Your task to perform on an android device: Open Chrome and go to the settings page Image 0: 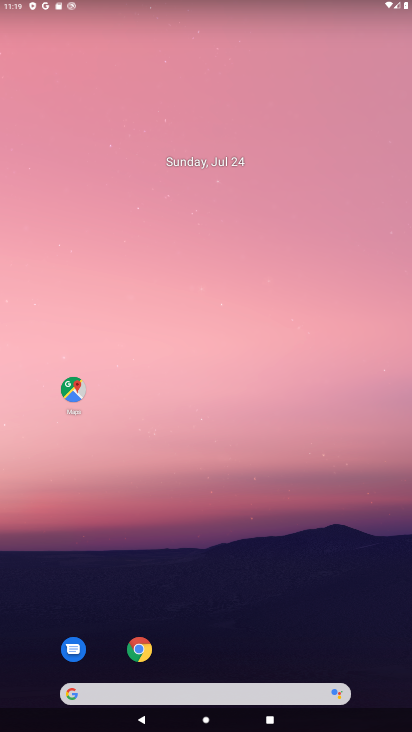
Step 0: click (199, 59)
Your task to perform on an android device: Open Chrome and go to the settings page Image 1: 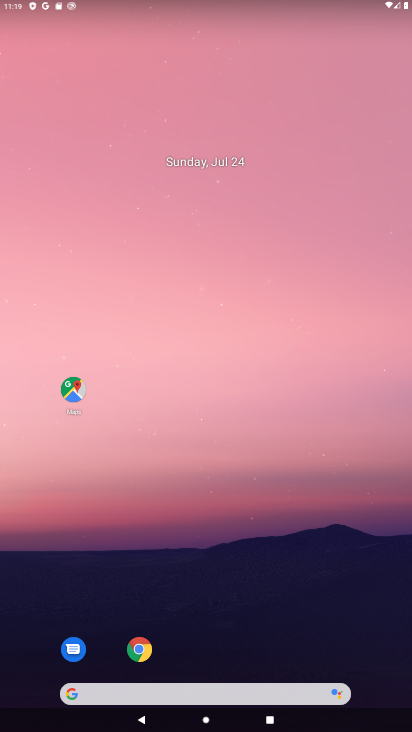
Step 1: press home button
Your task to perform on an android device: Open Chrome and go to the settings page Image 2: 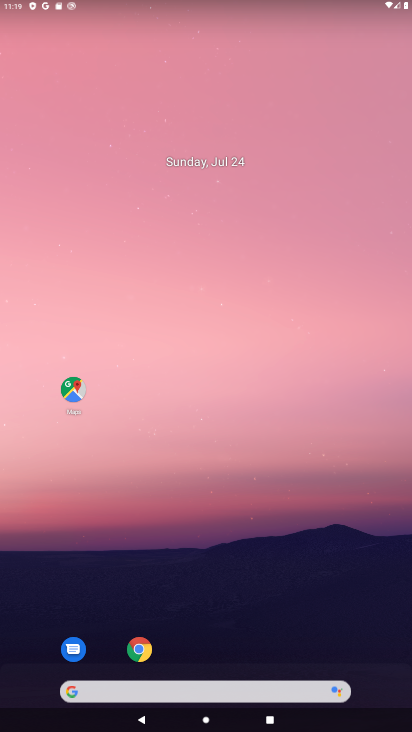
Step 2: click (141, 645)
Your task to perform on an android device: Open Chrome and go to the settings page Image 3: 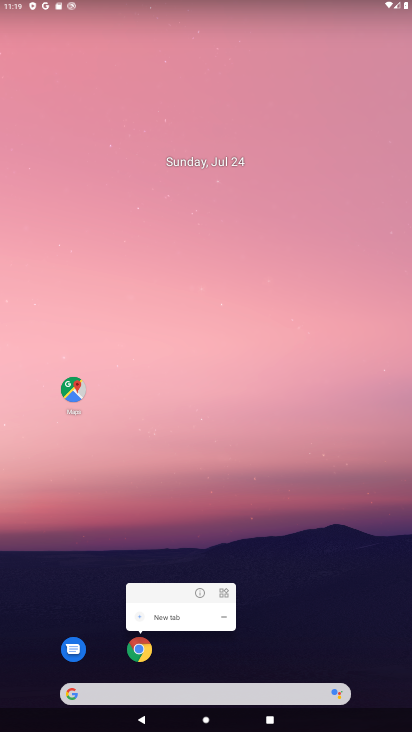
Step 3: click (141, 645)
Your task to perform on an android device: Open Chrome and go to the settings page Image 4: 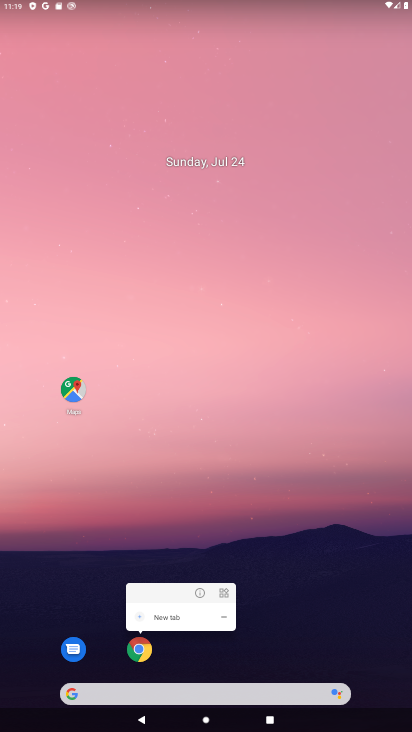
Step 4: click (141, 645)
Your task to perform on an android device: Open Chrome and go to the settings page Image 5: 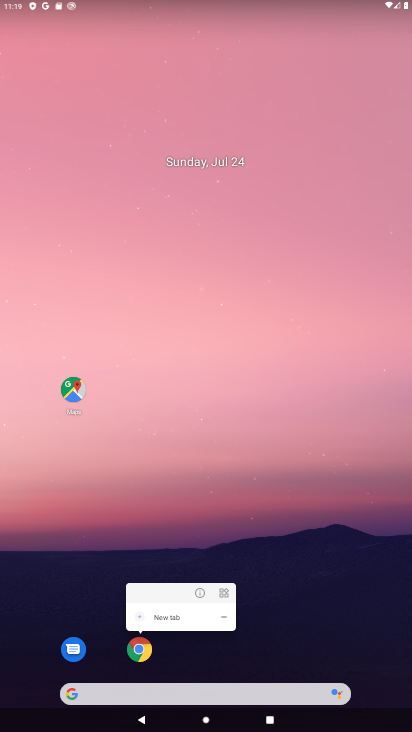
Step 5: click (136, 648)
Your task to perform on an android device: Open Chrome and go to the settings page Image 6: 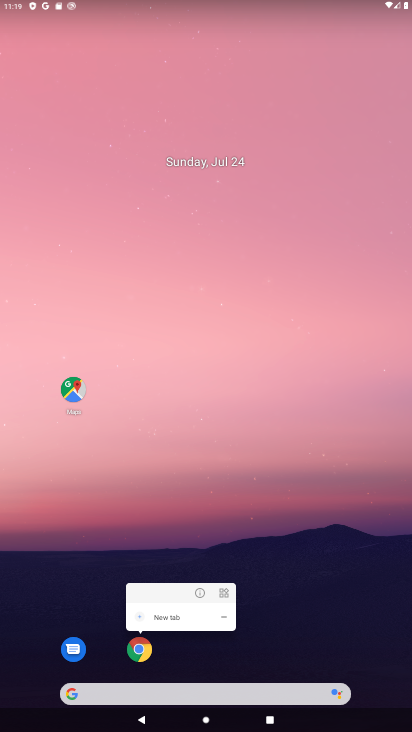
Step 6: click (138, 648)
Your task to perform on an android device: Open Chrome and go to the settings page Image 7: 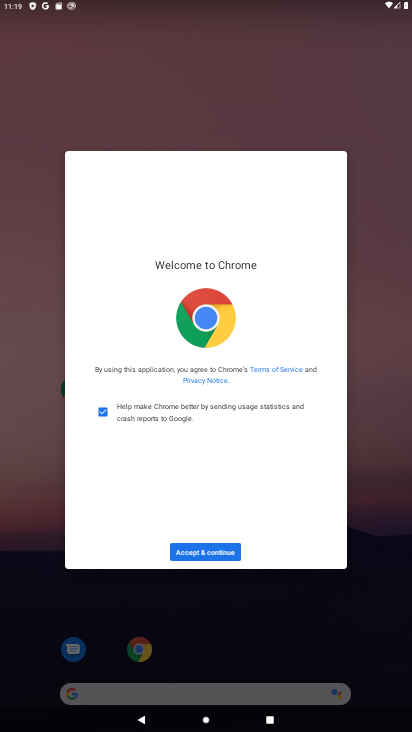
Step 7: click (206, 548)
Your task to perform on an android device: Open Chrome and go to the settings page Image 8: 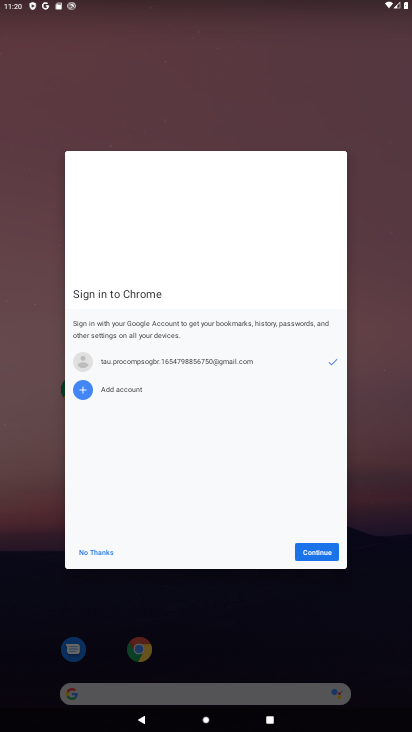
Step 8: click (312, 550)
Your task to perform on an android device: Open Chrome and go to the settings page Image 9: 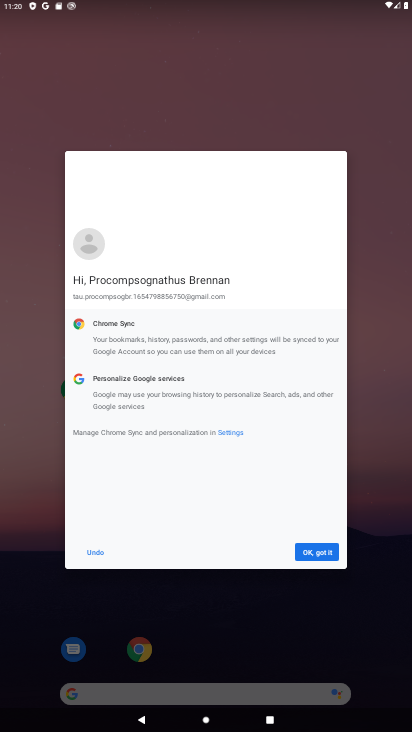
Step 9: click (319, 550)
Your task to perform on an android device: Open Chrome and go to the settings page Image 10: 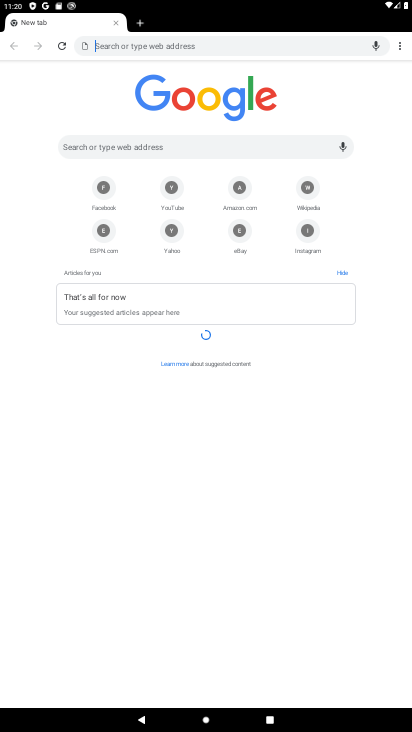
Step 10: click (399, 44)
Your task to perform on an android device: Open Chrome and go to the settings page Image 11: 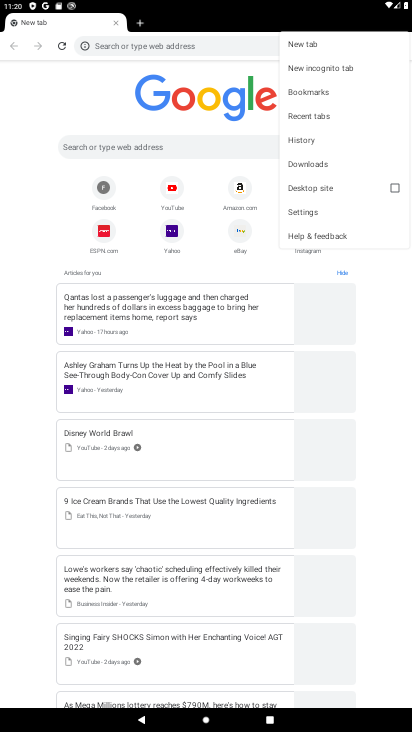
Step 11: click (318, 210)
Your task to perform on an android device: Open Chrome and go to the settings page Image 12: 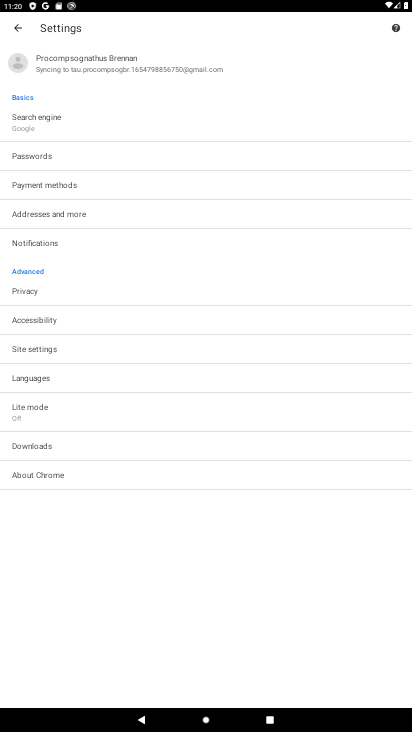
Step 12: task complete